Your task to perform on an android device: Open privacy settings Image 0: 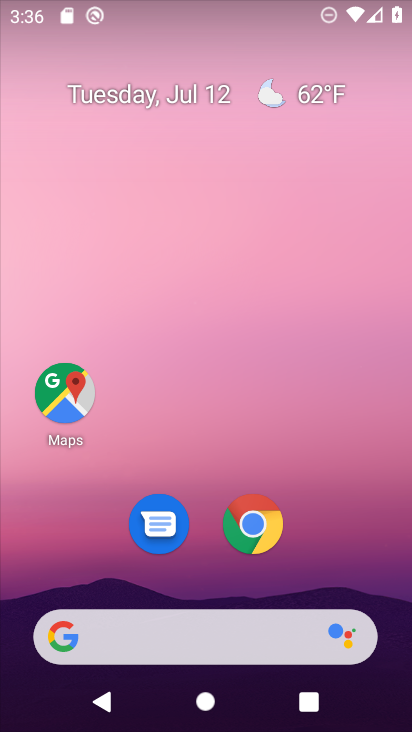
Step 0: drag from (330, 571) to (363, 31)
Your task to perform on an android device: Open privacy settings Image 1: 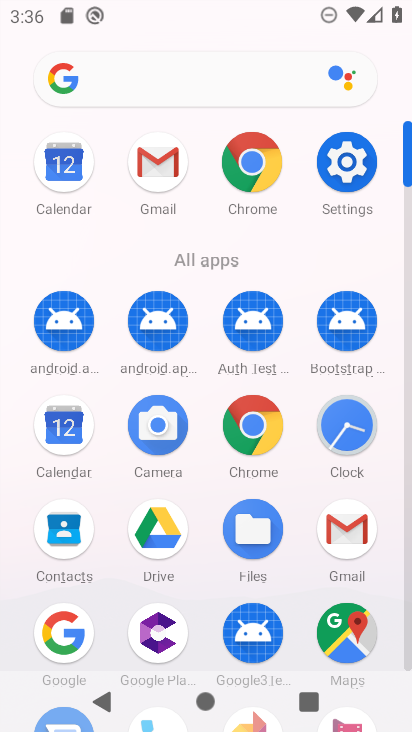
Step 1: click (342, 165)
Your task to perform on an android device: Open privacy settings Image 2: 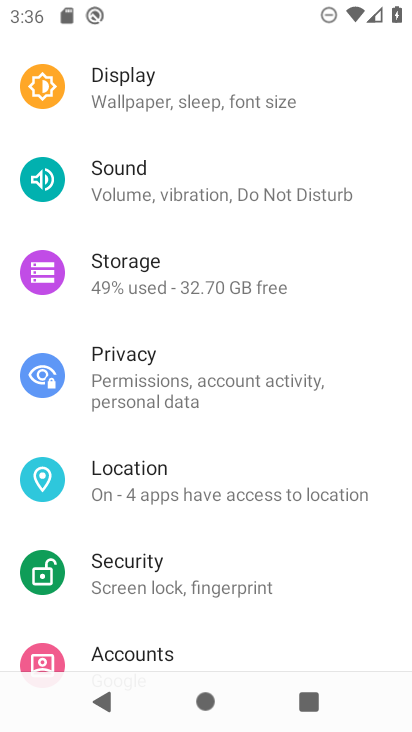
Step 2: click (195, 370)
Your task to perform on an android device: Open privacy settings Image 3: 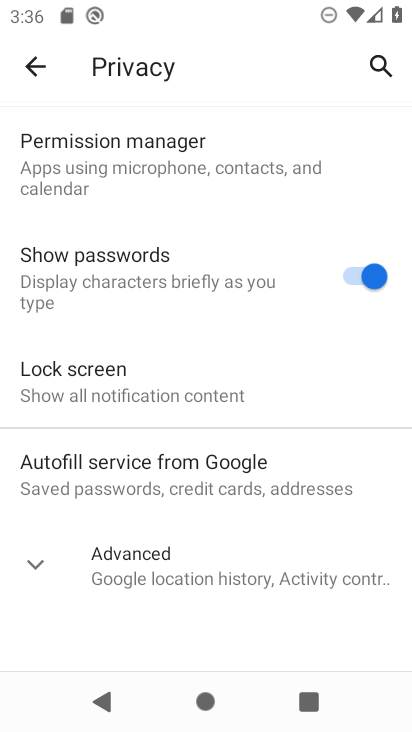
Step 3: task complete